Your task to perform on an android device: Go to internet settings Image 0: 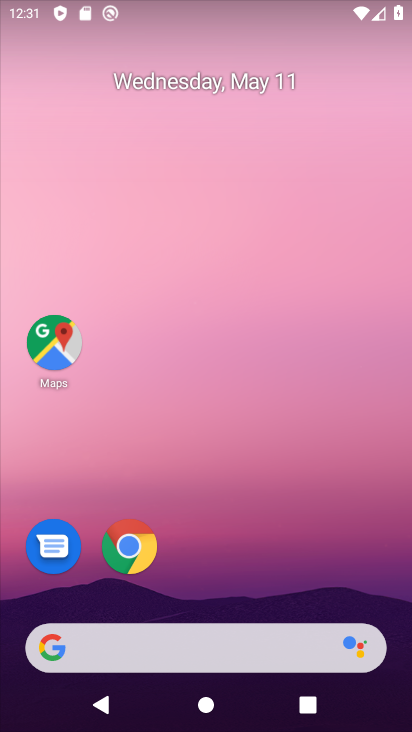
Step 0: drag from (255, 658) to (190, 288)
Your task to perform on an android device: Go to internet settings Image 1: 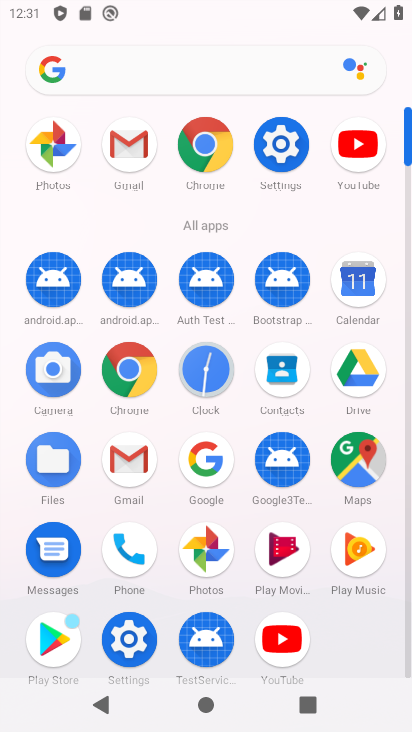
Step 1: click (277, 148)
Your task to perform on an android device: Go to internet settings Image 2: 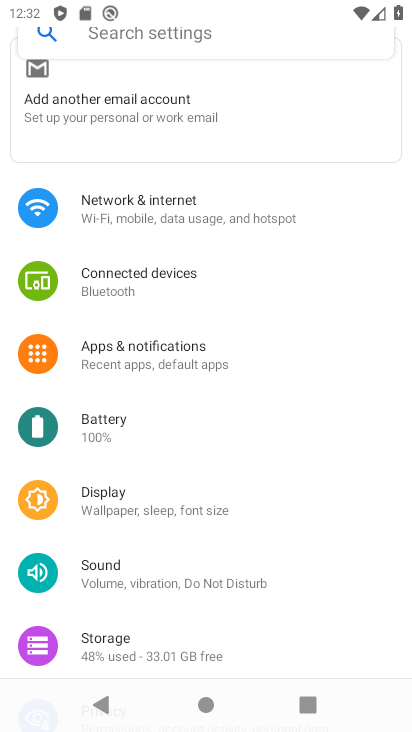
Step 2: click (153, 204)
Your task to perform on an android device: Go to internet settings Image 3: 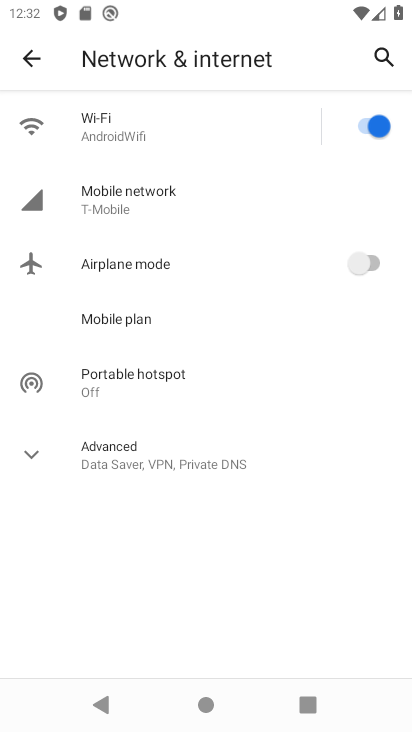
Step 3: task complete